Your task to perform on an android device: open sync settings in chrome Image 0: 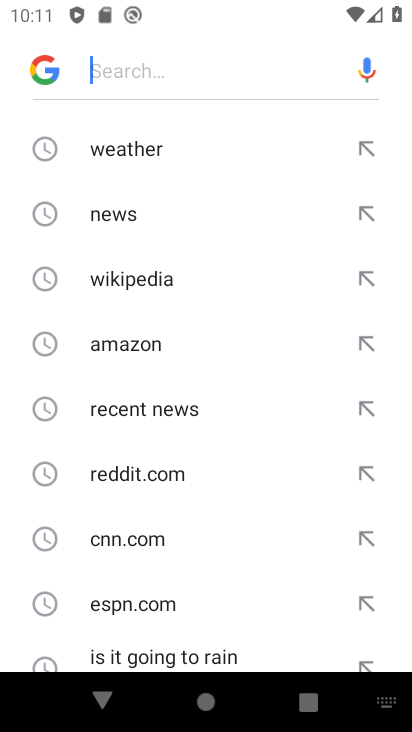
Step 0: press home button
Your task to perform on an android device: open sync settings in chrome Image 1: 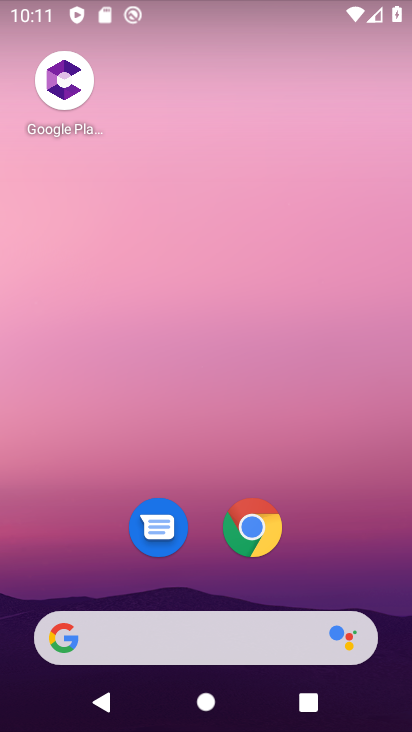
Step 1: click (267, 528)
Your task to perform on an android device: open sync settings in chrome Image 2: 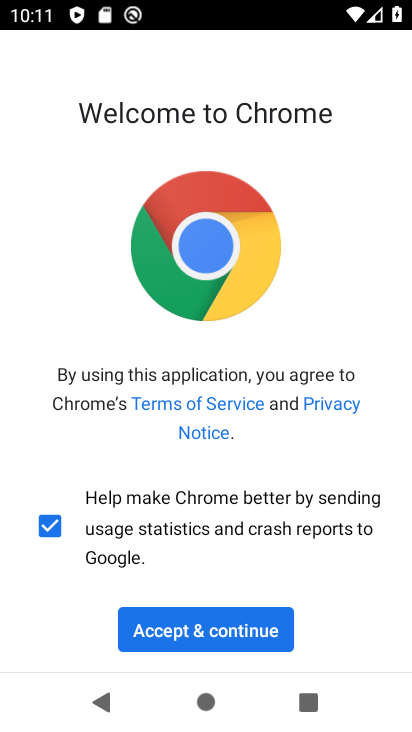
Step 2: click (249, 640)
Your task to perform on an android device: open sync settings in chrome Image 3: 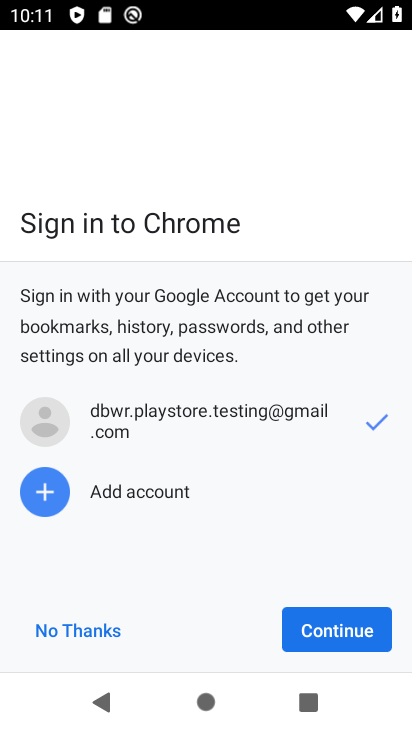
Step 3: click (306, 640)
Your task to perform on an android device: open sync settings in chrome Image 4: 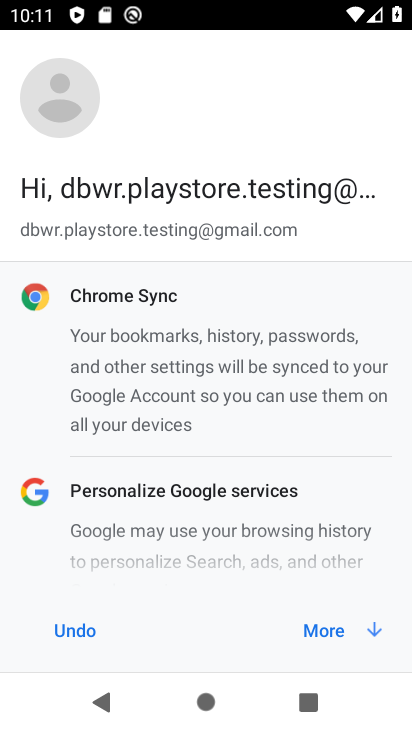
Step 4: click (306, 640)
Your task to perform on an android device: open sync settings in chrome Image 5: 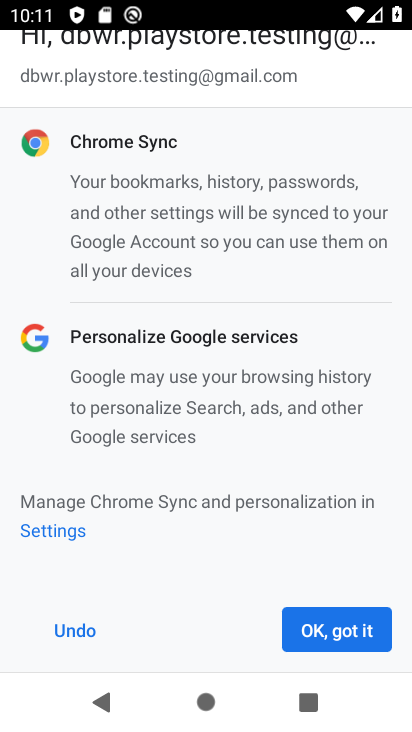
Step 5: click (306, 640)
Your task to perform on an android device: open sync settings in chrome Image 6: 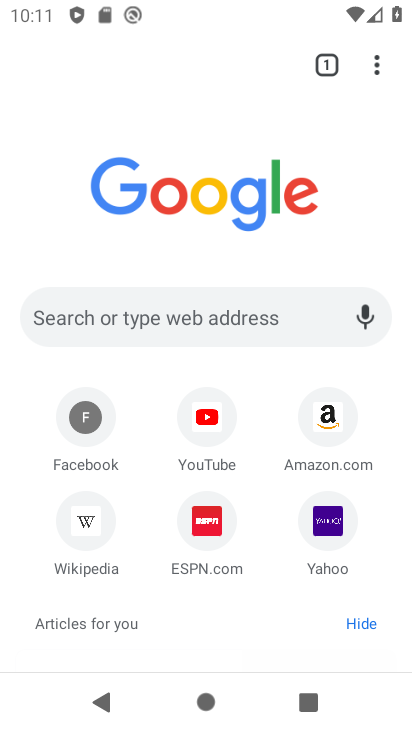
Step 6: click (375, 56)
Your task to perform on an android device: open sync settings in chrome Image 7: 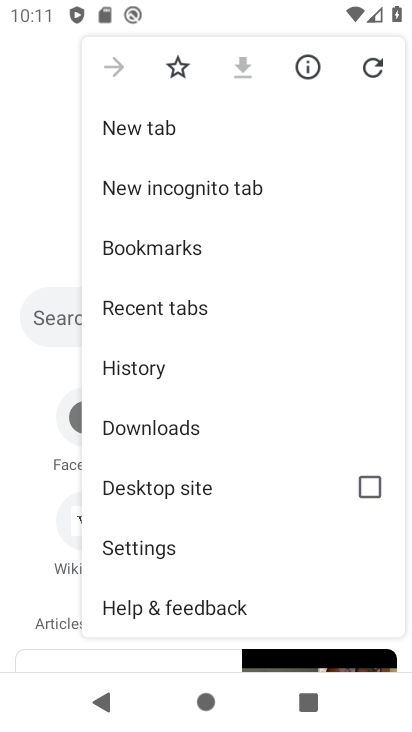
Step 7: click (216, 547)
Your task to perform on an android device: open sync settings in chrome Image 8: 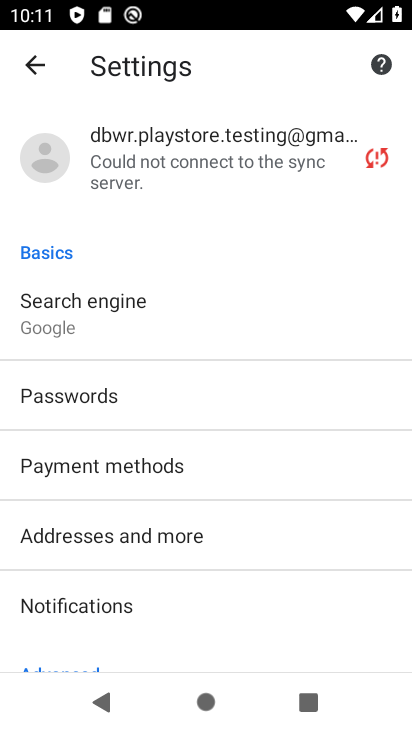
Step 8: click (156, 165)
Your task to perform on an android device: open sync settings in chrome Image 9: 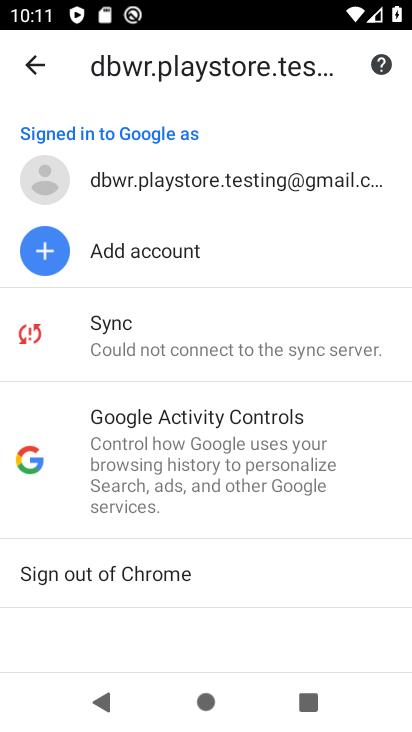
Step 9: click (109, 321)
Your task to perform on an android device: open sync settings in chrome Image 10: 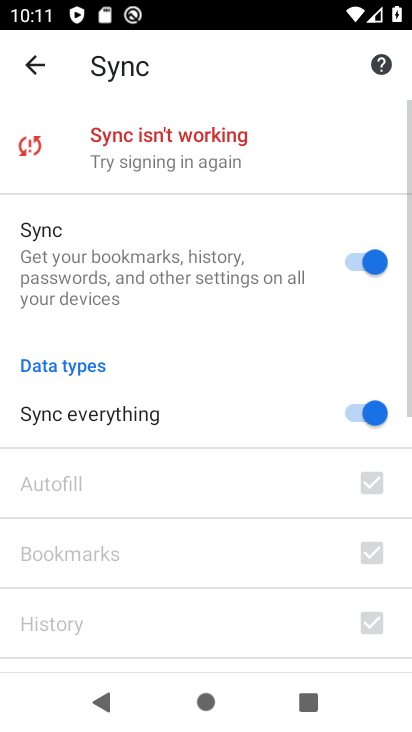
Step 10: task complete